Your task to perform on an android device: Show me popular videos on Youtube Image 0: 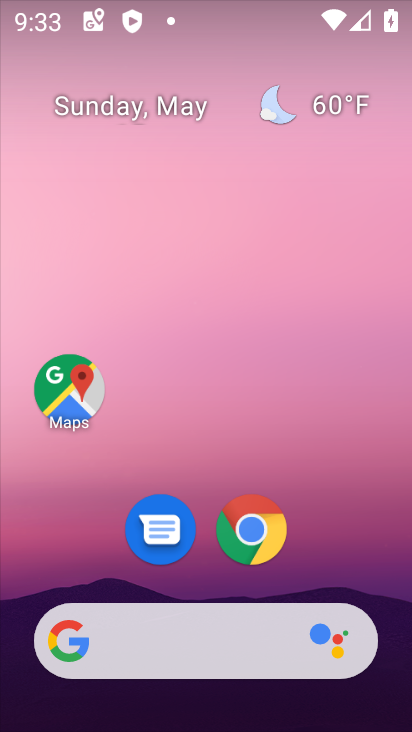
Step 0: drag from (397, 595) to (371, 136)
Your task to perform on an android device: Show me popular videos on Youtube Image 1: 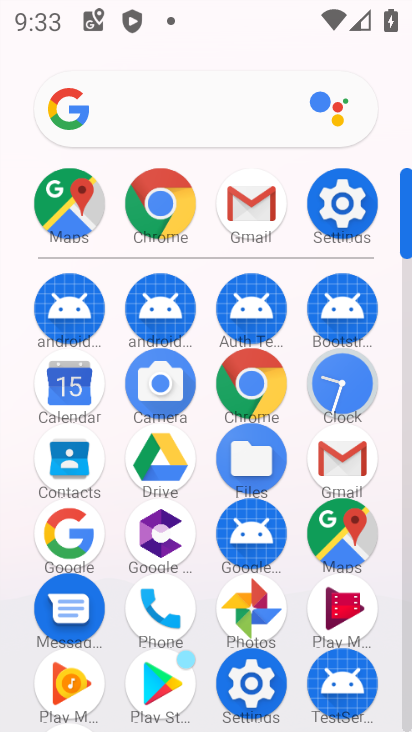
Step 1: drag from (211, 610) to (210, 438)
Your task to perform on an android device: Show me popular videos on Youtube Image 2: 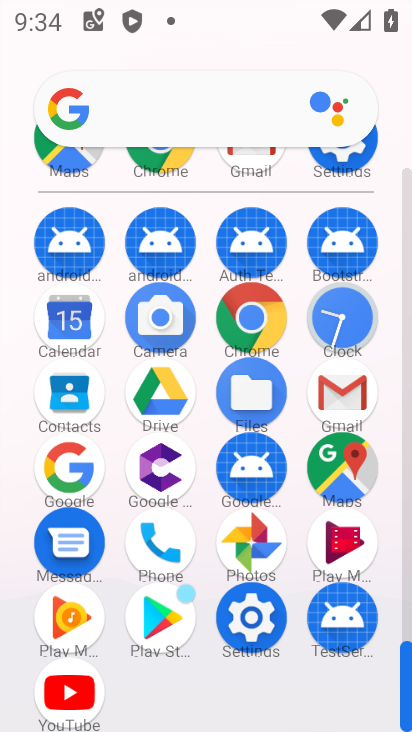
Step 2: click (76, 701)
Your task to perform on an android device: Show me popular videos on Youtube Image 3: 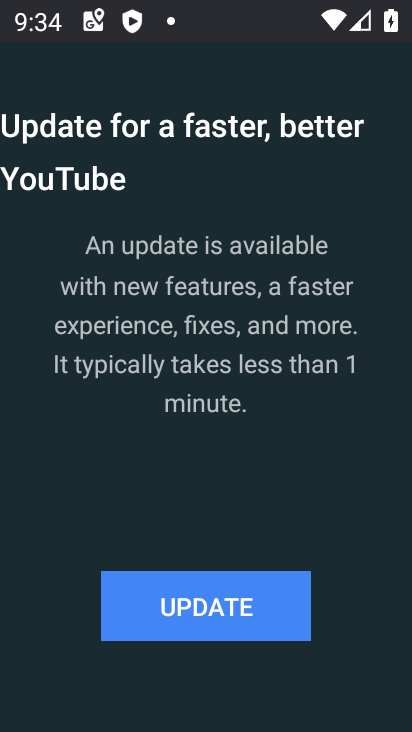
Step 3: click (257, 617)
Your task to perform on an android device: Show me popular videos on Youtube Image 4: 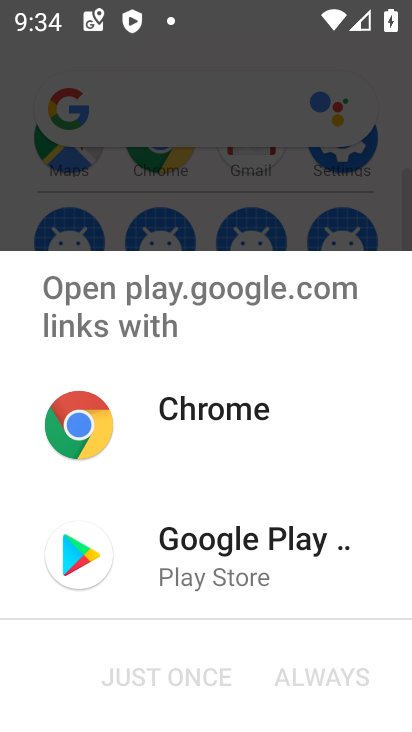
Step 4: click (235, 565)
Your task to perform on an android device: Show me popular videos on Youtube Image 5: 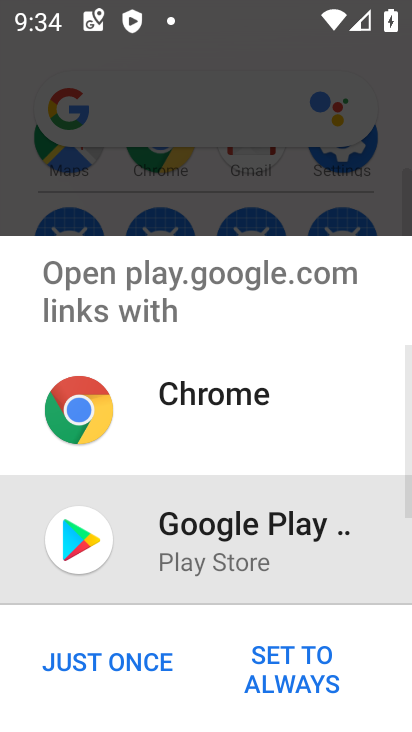
Step 5: click (139, 668)
Your task to perform on an android device: Show me popular videos on Youtube Image 6: 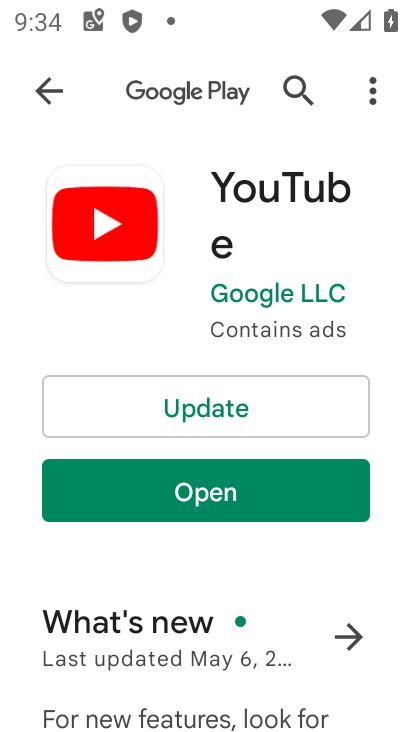
Step 6: click (179, 419)
Your task to perform on an android device: Show me popular videos on Youtube Image 7: 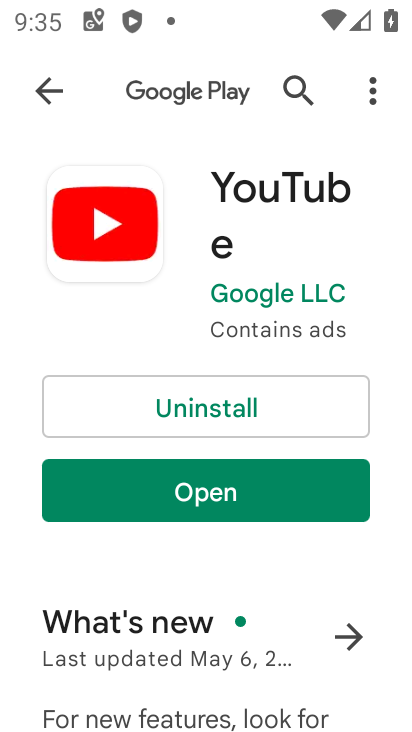
Step 7: click (205, 507)
Your task to perform on an android device: Show me popular videos on Youtube Image 8: 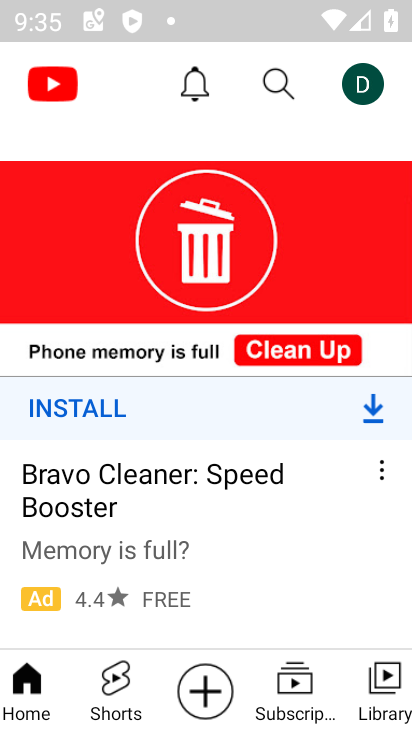
Step 8: task complete